Your task to perform on an android device: Open wifi settings Image 0: 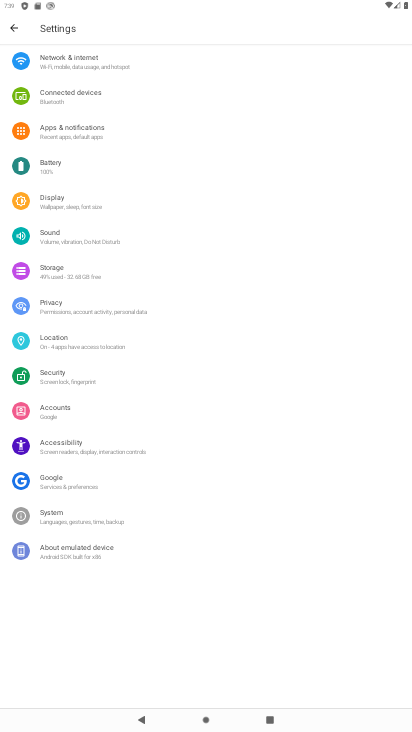
Step 0: press home button
Your task to perform on an android device: Open wifi settings Image 1: 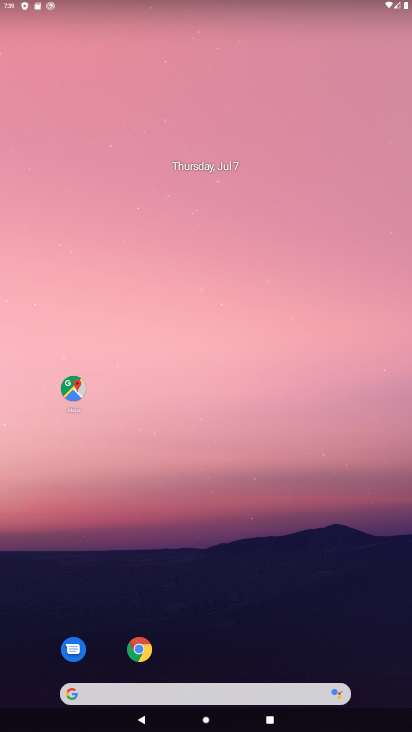
Step 1: drag from (217, 654) to (273, 35)
Your task to perform on an android device: Open wifi settings Image 2: 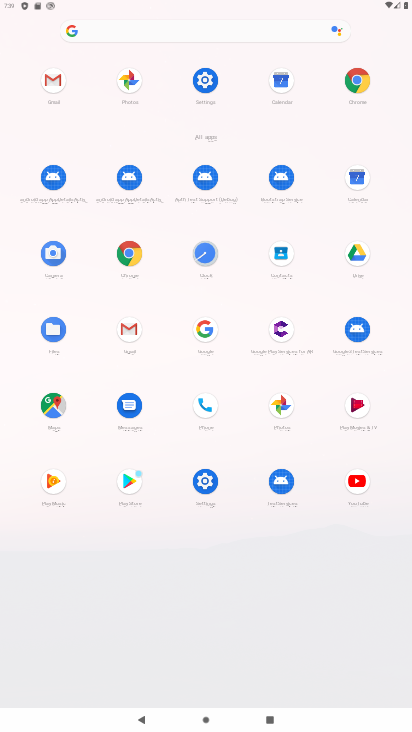
Step 2: click (204, 75)
Your task to perform on an android device: Open wifi settings Image 3: 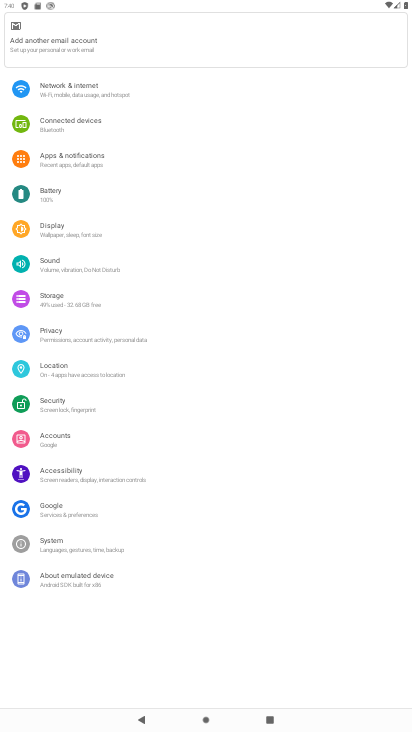
Step 3: click (105, 81)
Your task to perform on an android device: Open wifi settings Image 4: 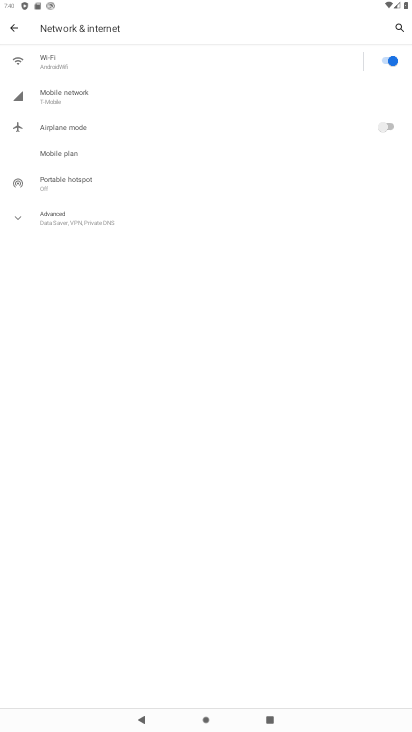
Step 4: click (19, 213)
Your task to perform on an android device: Open wifi settings Image 5: 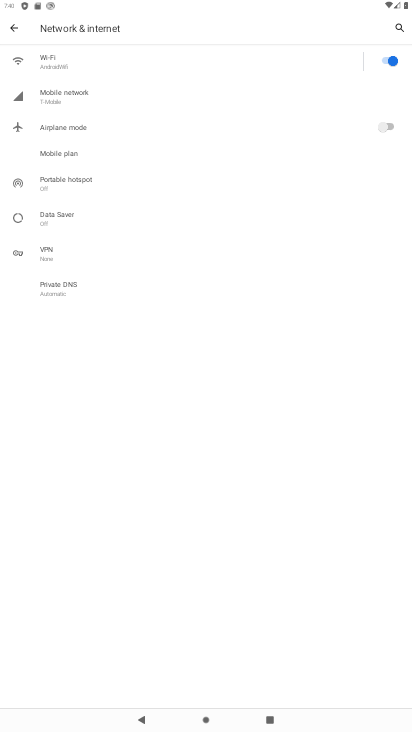
Step 5: click (86, 60)
Your task to perform on an android device: Open wifi settings Image 6: 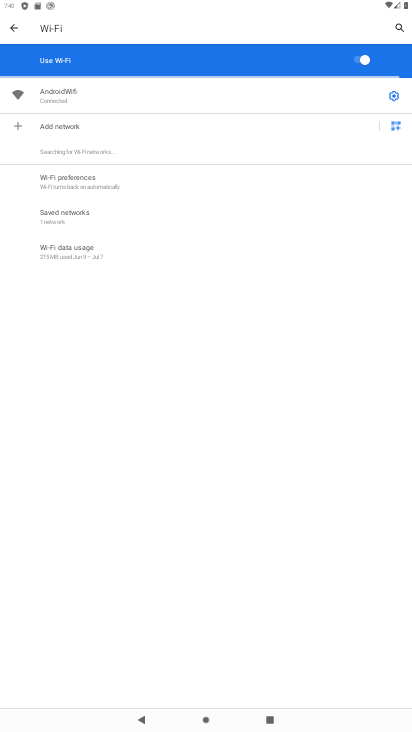
Step 6: task complete